Your task to perform on an android device: Open Google Chrome and click the shortcut for Amazon.com Image 0: 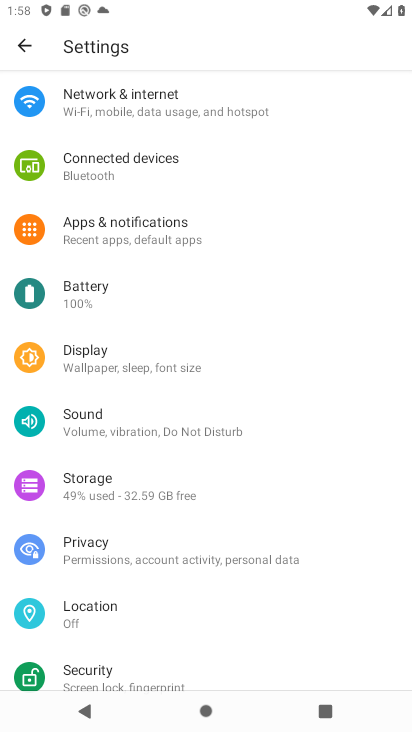
Step 0: press home button
Your task to perform on an android device: Open Google Chrome and click the shortcut for Amazon.com Image 1: 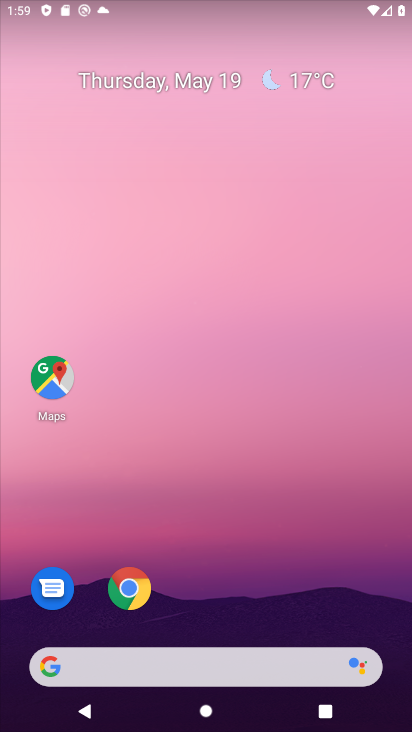
Step 1: drag from (255, 571) to (267, 138)
Your task to perform on an android device: Open Google Chrome and click the shortcut for Amazon.com Image 2: 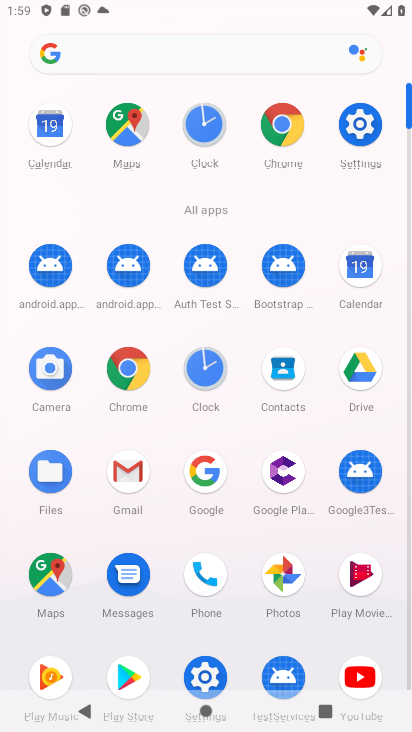
Step 2: click (282, 121)
Your task to perform on an android device: Open Google Chrome and click the shortcut for Amazon.com Image 3: 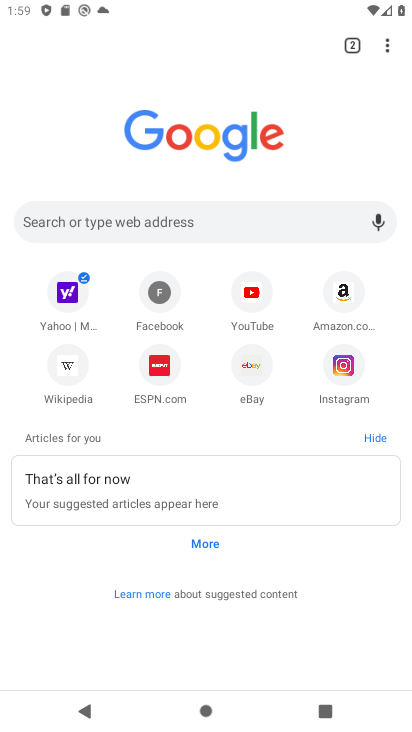
Step 3: click (339, 296)
Your task to perform on an android device: Open Google Chrome and click the shortcut for Amazon.com Image 4: 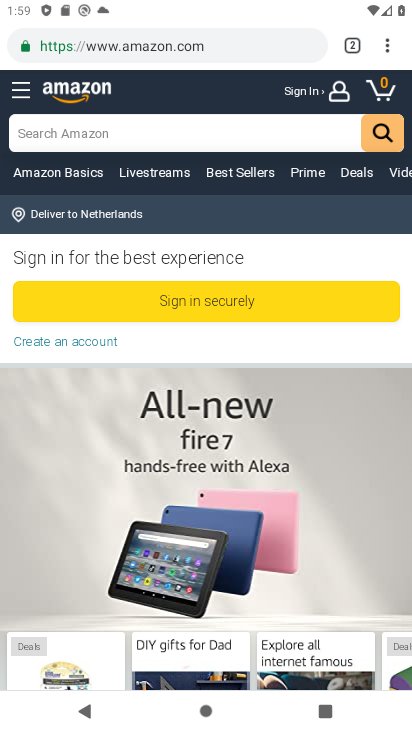
Step 4: task complete